Your task to perform on an android device: empty trash in the gmail app Image 0: 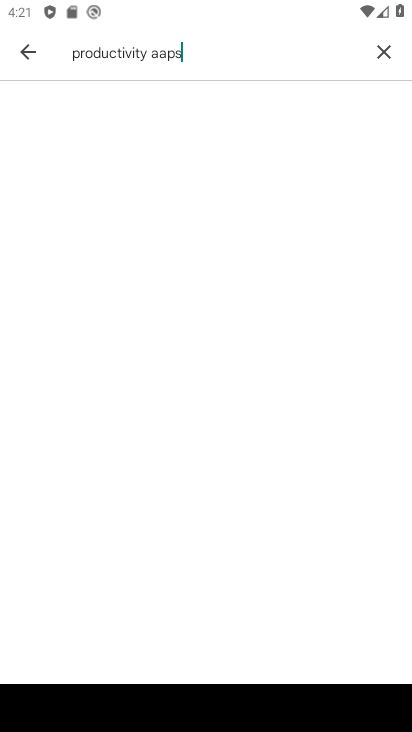
Step 0: press home button
Your task to perform on an android device: empty trash in the gmail app Image 1: 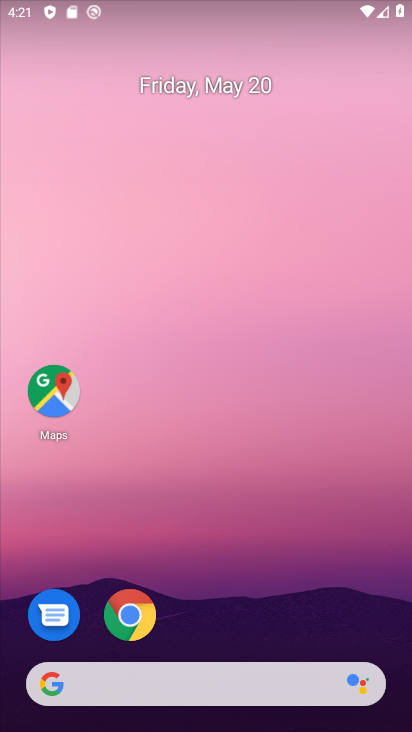
Step 1: drag from (255, 638) to (284, 291)
Your task to perform on an android device: empty trash in the gmail app Image 2: 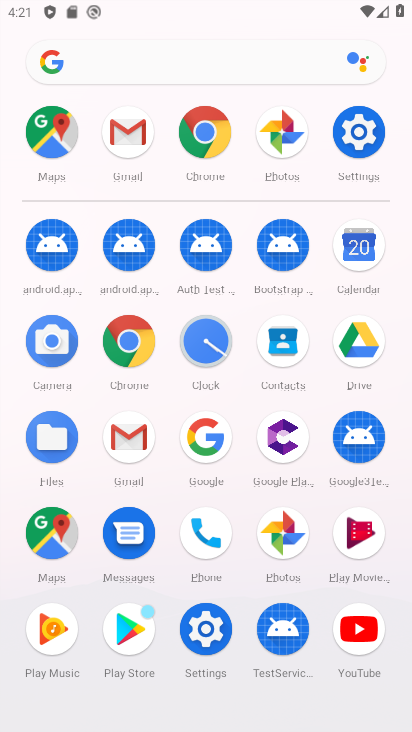
Step 2: click (142, 446)
Your task to perform on an android device: empty trash in the gmail app Image 3: 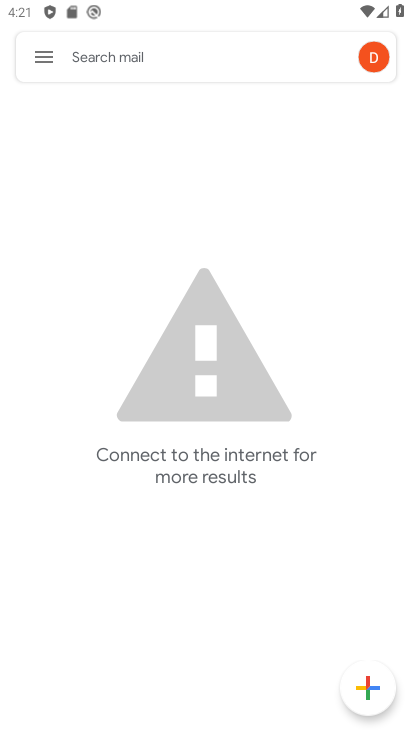
Step 3: click (48, 68)
Your task to perform on an android device: empty trash in the gmail app Image 4: 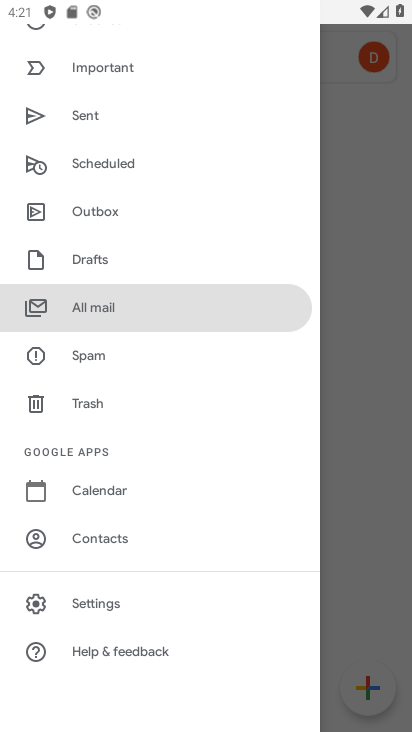
Step 4: click (109, 404)
Your task to perform on an android device: empty trash in the gmail app Image 5: 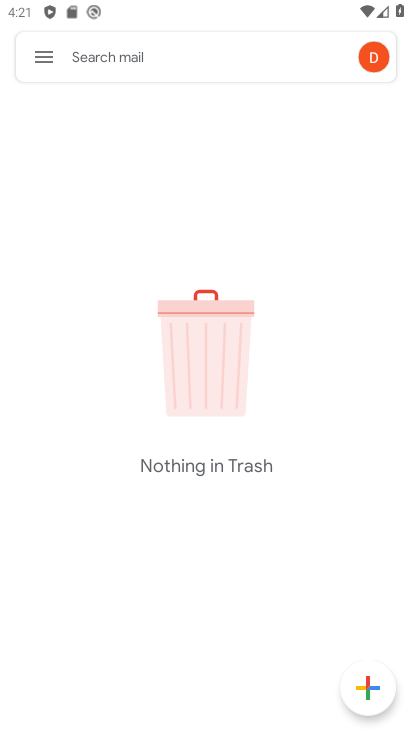
Step 5: task complete